Your task to perform on an android device: Go to Amazon Image 0: 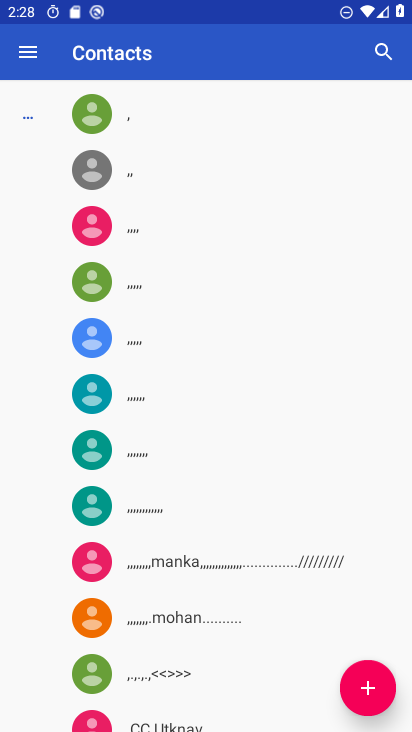
Step 0: press home button
Your task to perform on an android device: Go to Amazon Image 1: 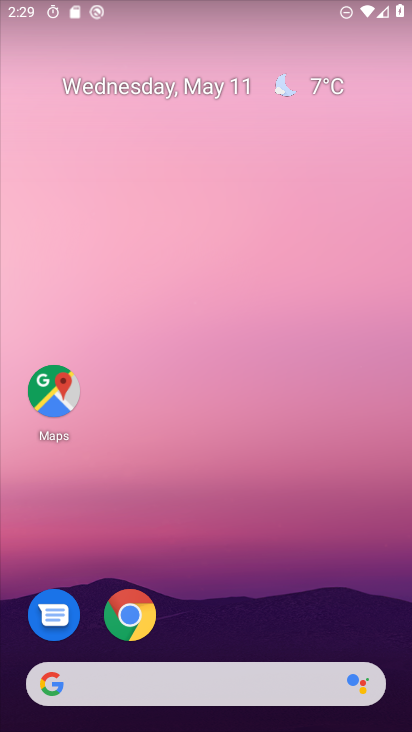
Step 1: click (143, 632)
Your task to perform on an android device: Go to Amazon Image 2: 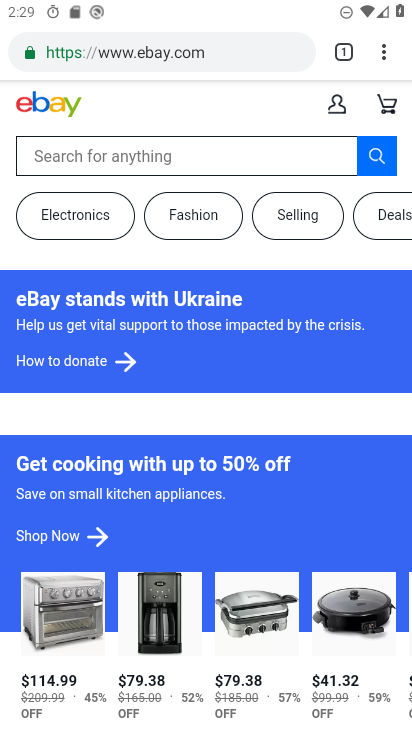
Step 2: click (155, 60)
Your task to perform on an android device: Go to Amazon Image 3: 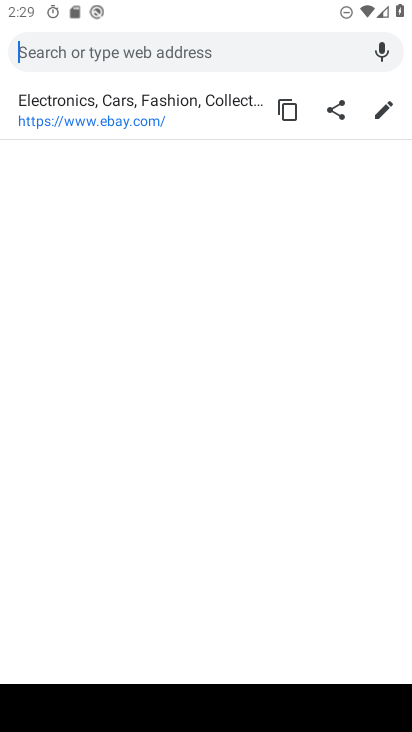
Step 3: type "amazon"
Your task to perform on an android device: Go to Amazon Image 4: 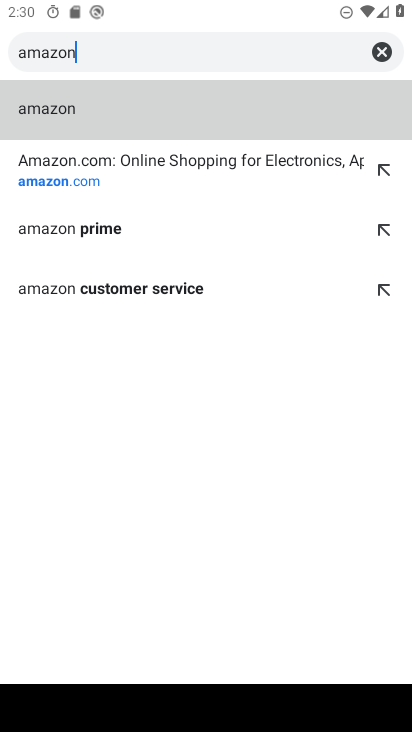
Step 4: click (218, 171)
Your task to perform on an android device: Go to Amazon Image 5: 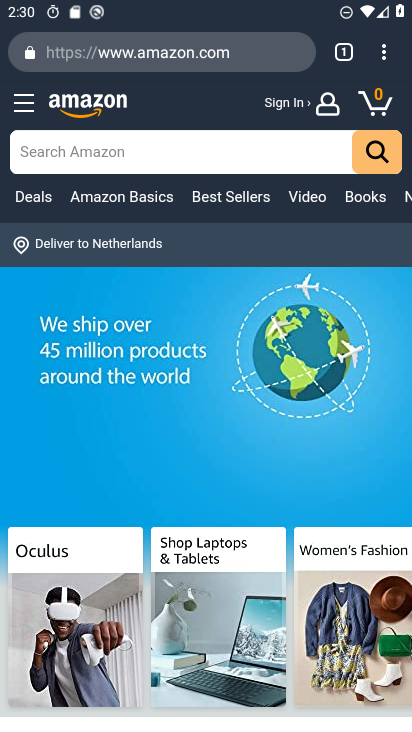
Step 5: task complete